Your task to perform on an android device: Check the news Image 0: 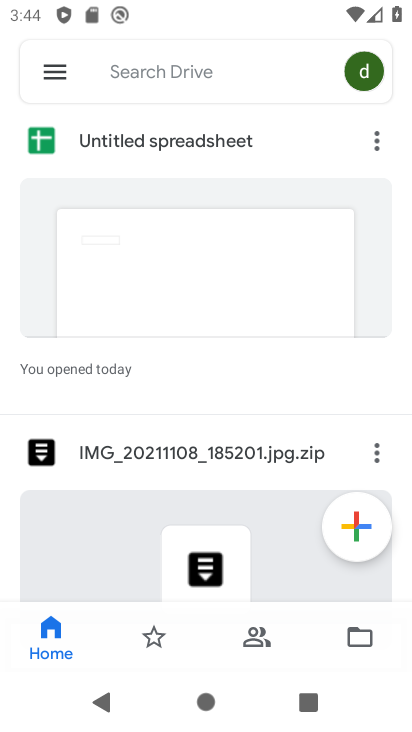
Step 0: press home button
Your task to perform on an android device: Check the news Image 1: 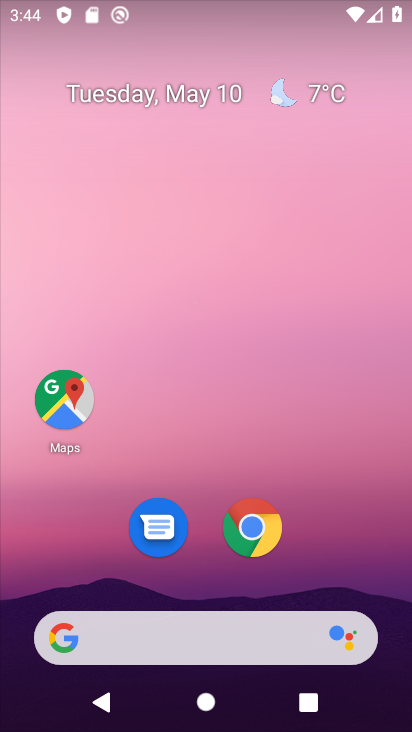
Step 1: task complete